Your task to perform on an android device: turn off wifi Image 0: 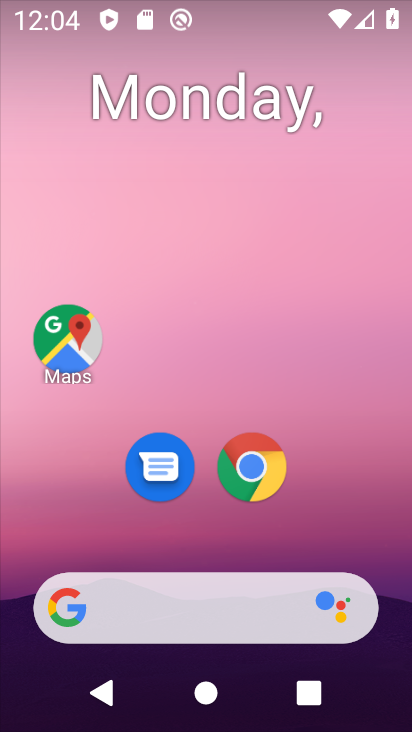
Step 0: drag from (396, 616) to (332, 25)
Your task to perform on an android device: turn off wifi Image 1: 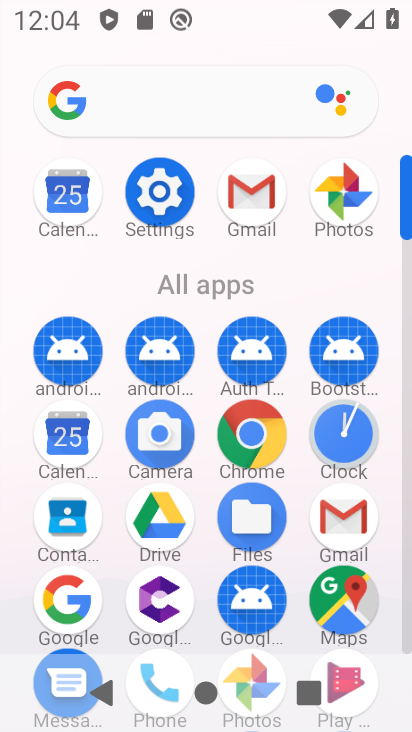
Step 1: click (405, 646)
Your task to perform on an android device: turn off wifi Image 2: 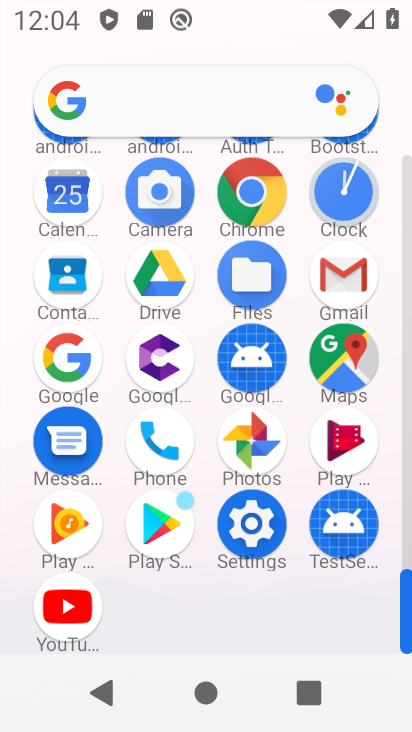
Step 2: click (252, 524)
Your task to perform on an android device: turn off wifi Image 3: 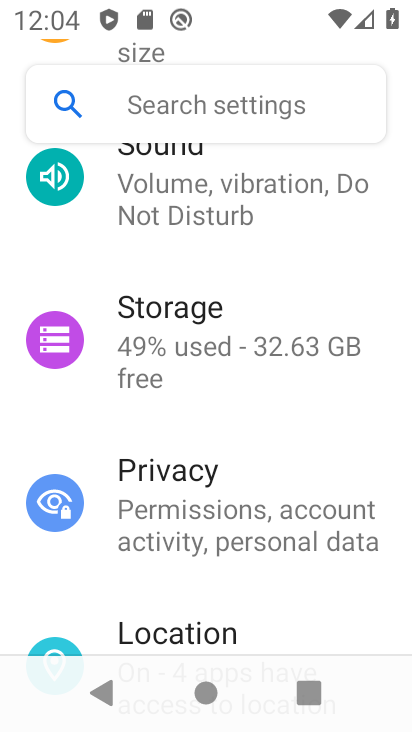
Step 3: drag from (315, 318) to (290, 561)
Your task to perform on an android device: turn off wifi Image 4: 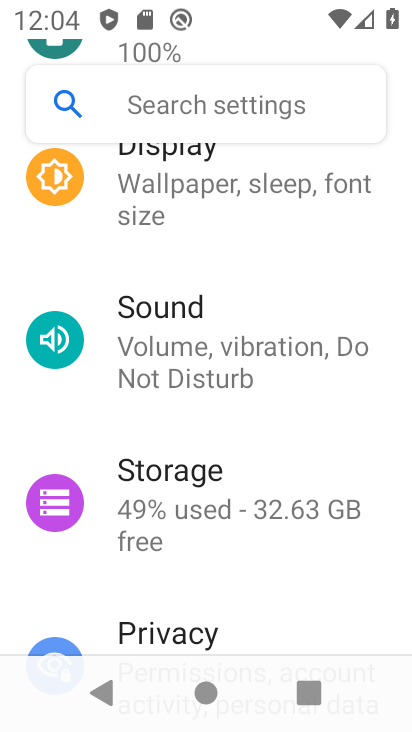
Step 4: drag from (331, 261) to (341, 627)
Your task to perform on an android device: turn off wifi Image 5: 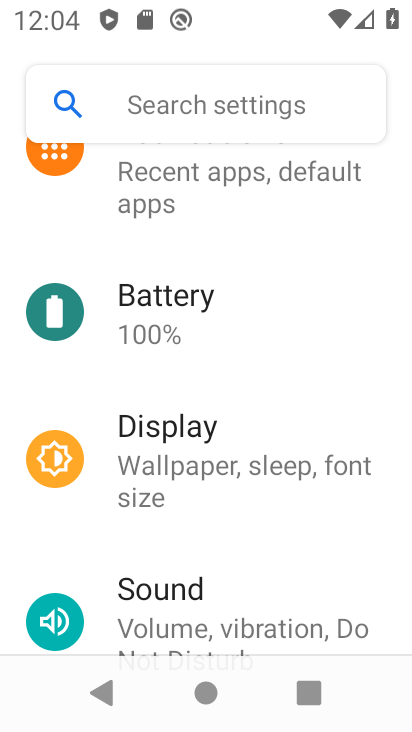
Step 5: drag from (357, 319) to (348, 584)
Your task to perform on an android device: turn off wifi Image 6: 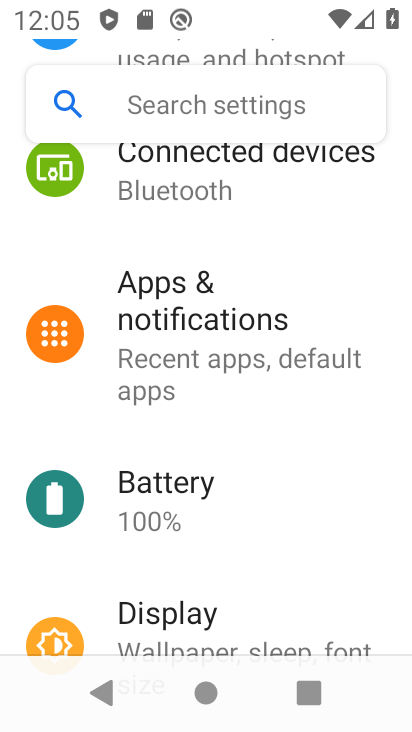
Step 6: drag from (340, 263) to (324, 562)
Your task to perform on an android device: turn off wifi Image 7: 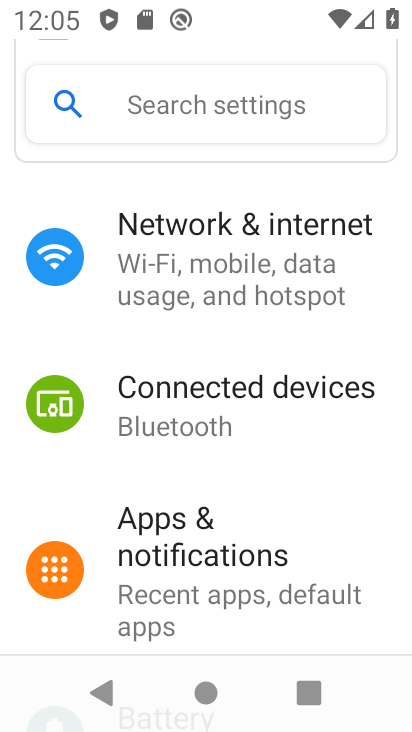
Step 7: click (201, 251)
Your task to perform on an android device: turn off wifi Image 8: 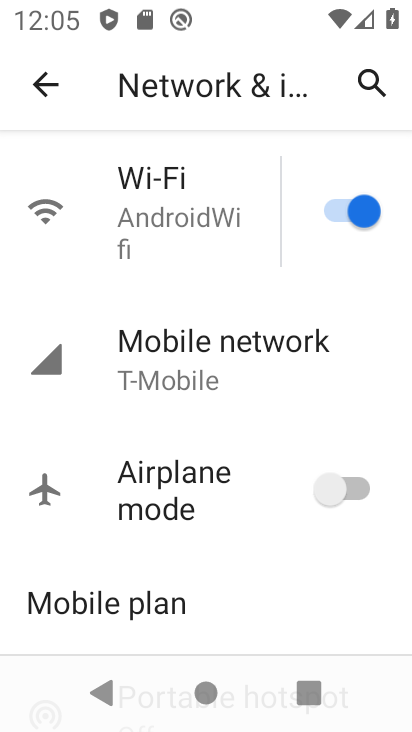
Step 8: click (335, 212)
Your task to perform on an android device: turn off wifi Image 9: 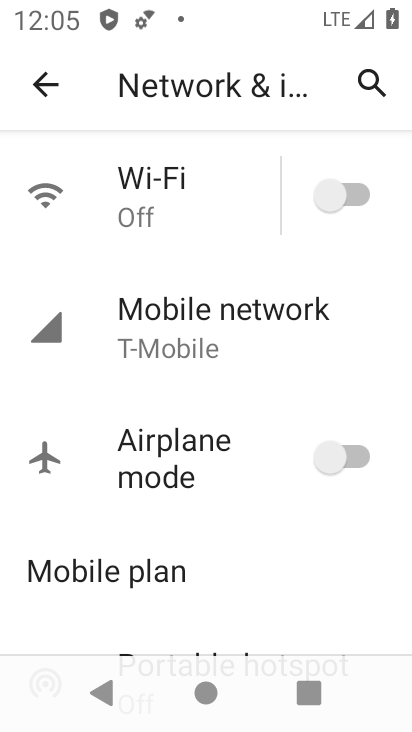
Step 9: task complete